Your task to perform on an android device: Open the calendar app, open the side menu, and click the "Day" option Image 0: 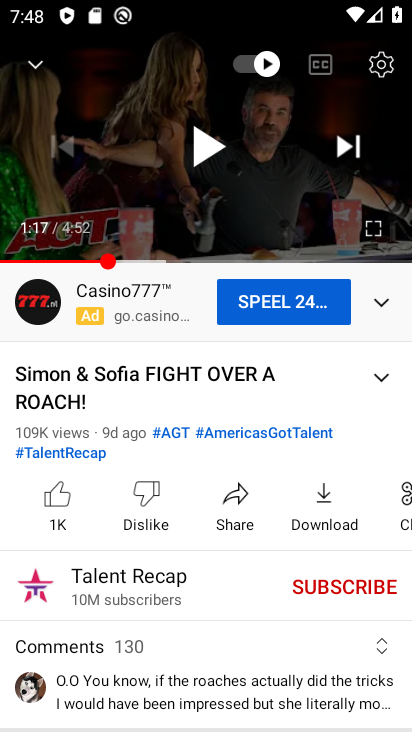
Step 0: press home button
Your task to perform on an android device: Open the calendar app, open the side menu, and click the "Day" option Image 1: 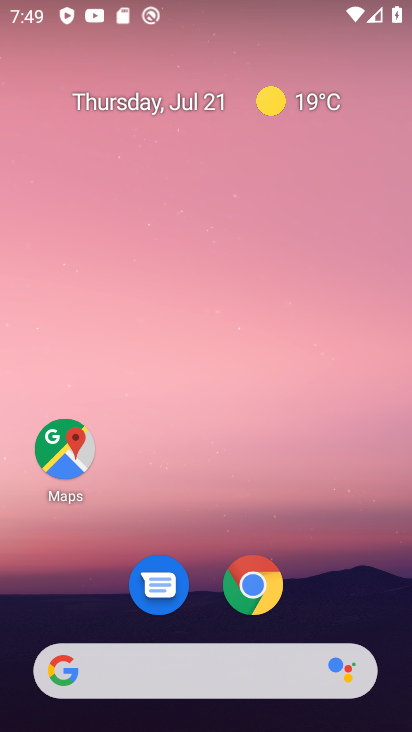
Step 1: drag from (322, 557) to (307, 25)
Your task to perform on an android device: Open the calendar app, open the side menu, and click the "Day" option Image 2: 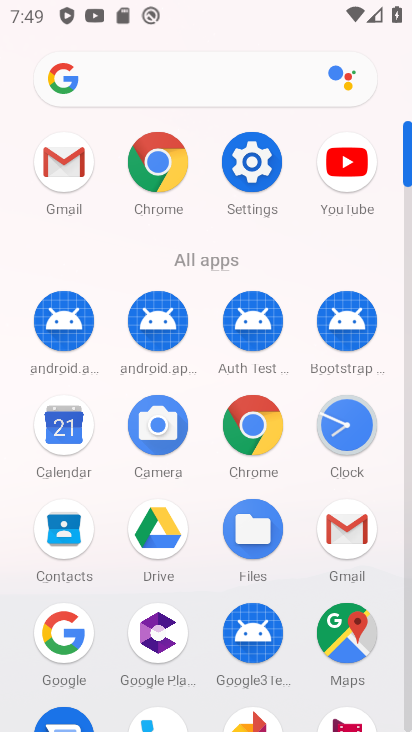
Step 2: click (73, 431)
Your task to perform on an android device: Open the calendar app, open the side menu, and click the "Day" option Image 3: 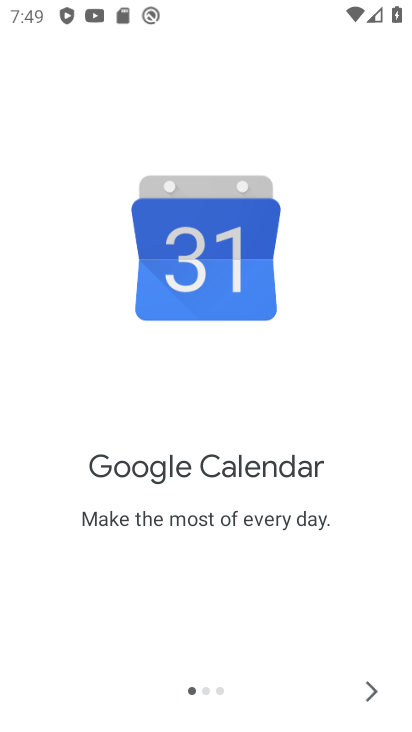
Step 3: click (370, 696)
Your task to perform on an android device: Open the calendar app, open the side menu, and click the "Day" option Image 4: 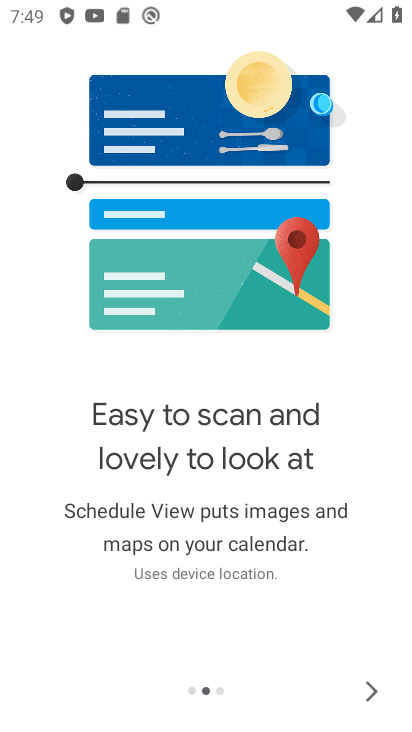
Step 4: click (370, 696)
Your task to perform on an android device: Open the calendar app, open the side menu, and click the "Day" option Image 5: 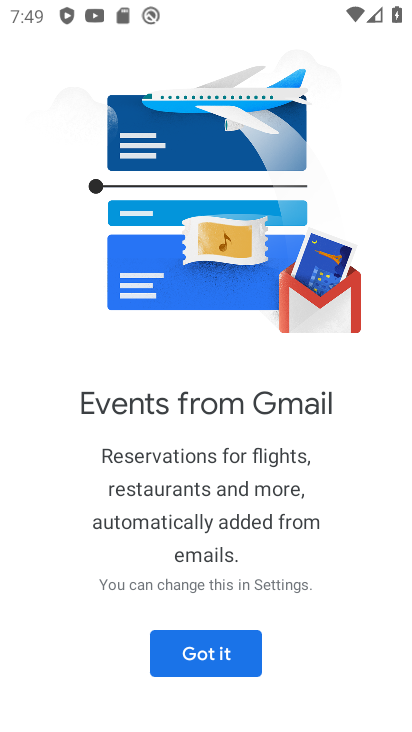
Step 5: click (224, 650)
Your task to perform on an android device: Open the calendar app, open the side menu, and click the "Day" option Image 6: 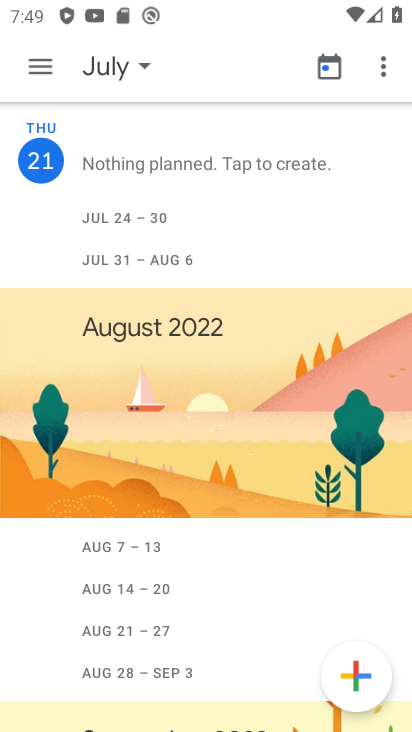
Step 6: click (39, 65)
Your task to perform on an android device: Open the calendar app, open the side menu, and click the "Day" option Image 7: 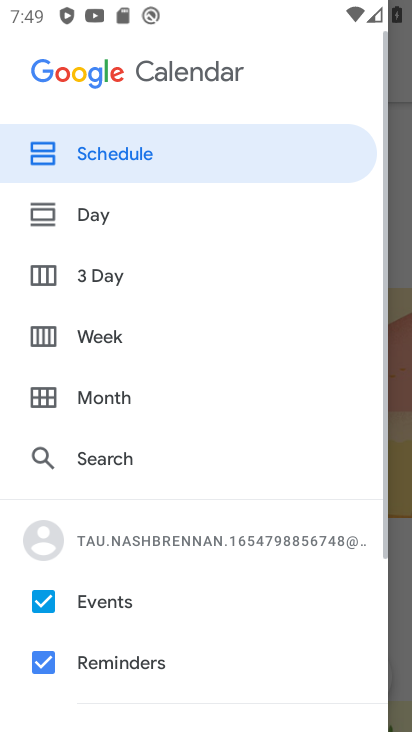
Step 7: click (55, 213)
Your task to perform on an android device: Open the calendar app, open the side menu, and click the "Day" option Image 8: 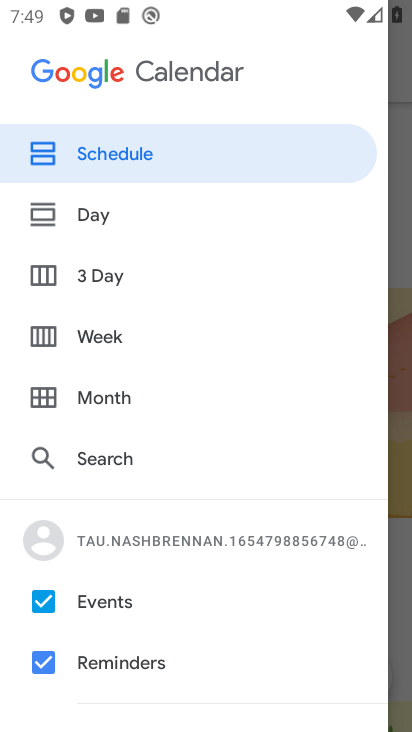
Step 8: click (47, 216)
Your task to perform on an android device: Open the calendar app, open the side menu, and click the "Day" option Image 9: 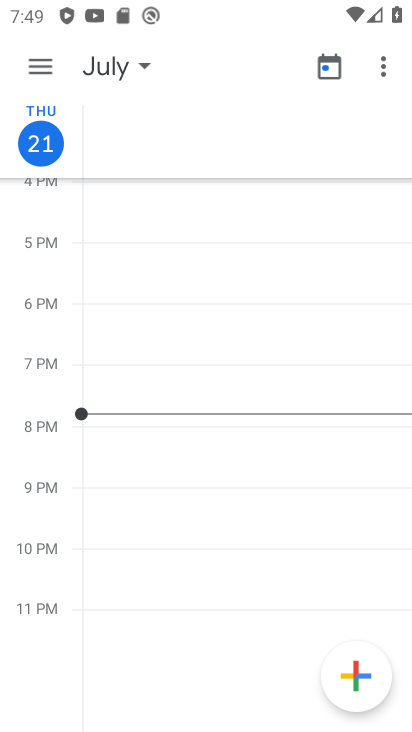
Step 9: task complete